Your task to perform on an android device: Go to Wikipedia Image 0: 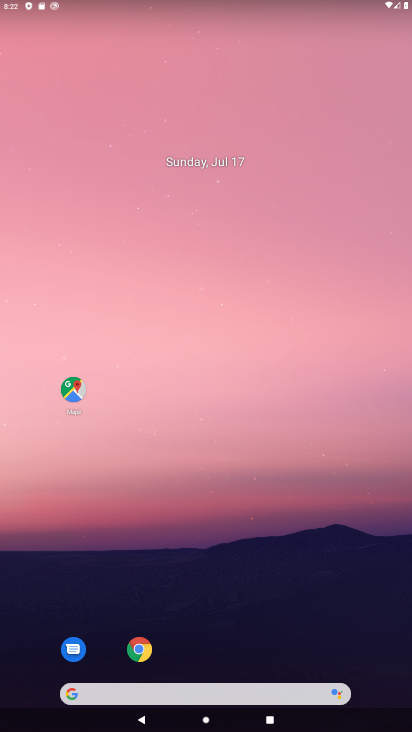
Step 0: drag from (193, 658) to (192, 127)
Your task to perform on an android device: Go to Wikipedia Image 1: 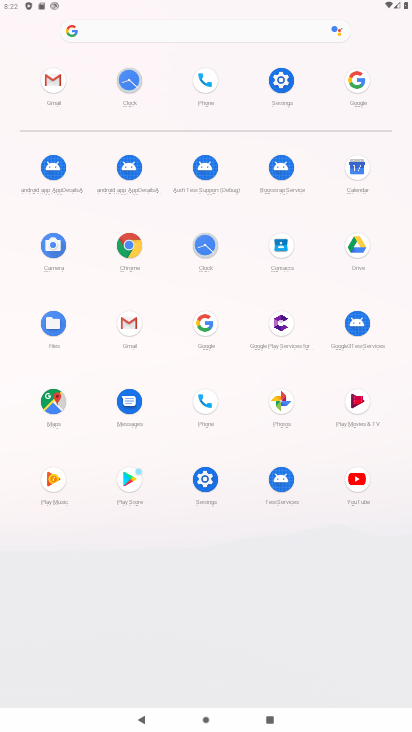
Step 1: click (129, 245)
Your task to perform on an android device: Go to Wikipedia Image 2: 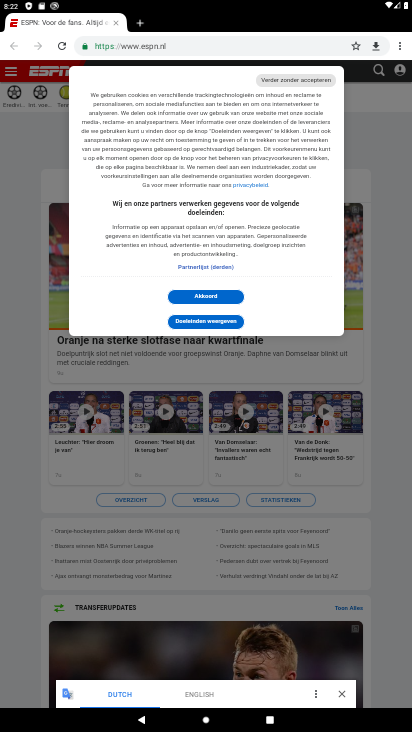
Step 2: press back button
Your task to perform on an android device: Go to Wikipedia Image 3: 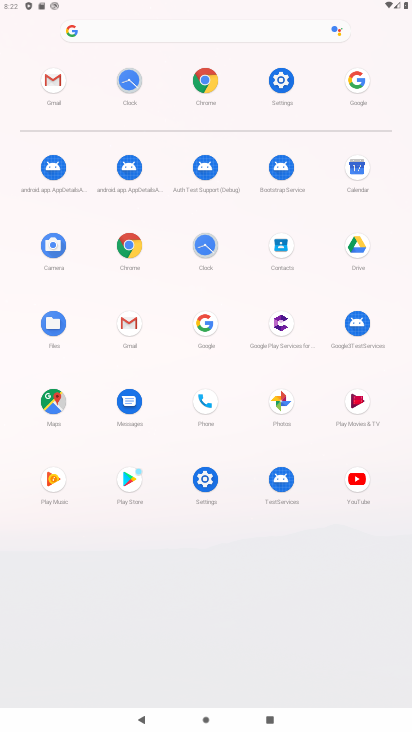
Step 3: click (126, 247)
Your task to perform on an android device: Go to Wikipedia Image 4: 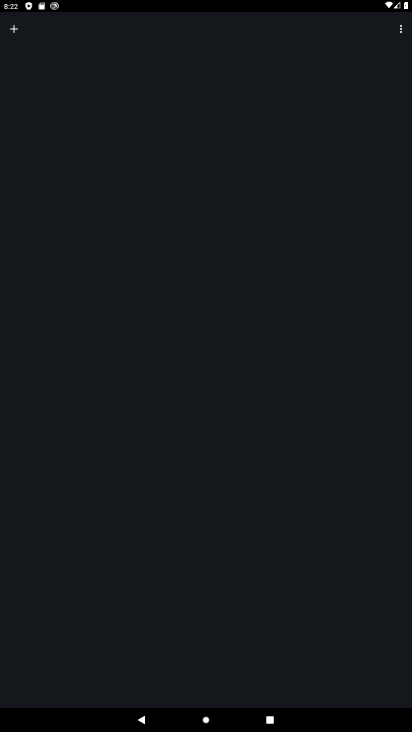
Step 4: click (11, 25)
Your task to perform on an android device: Go to Wikipedia Image 5: 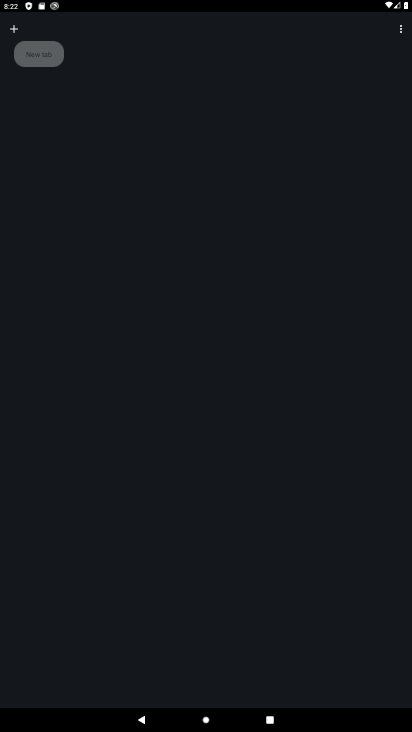
Step 5: click (16, 32)
Your task to perform on an android device: Go to Wikipedia Image 6: 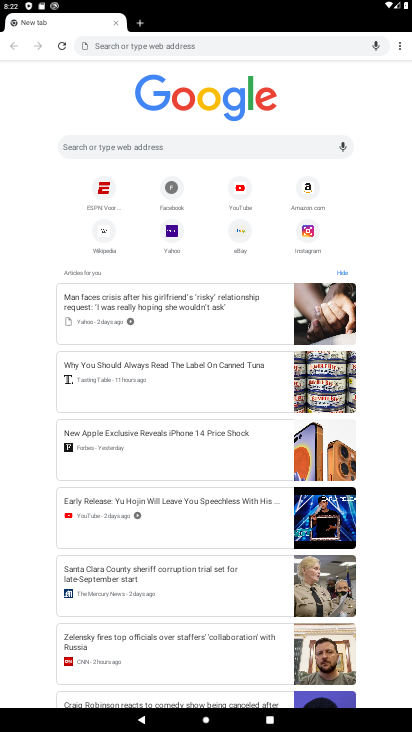
Step 6: click (109, 230)
Your task to perform on an android device: Go to Wikipedia Image 7: 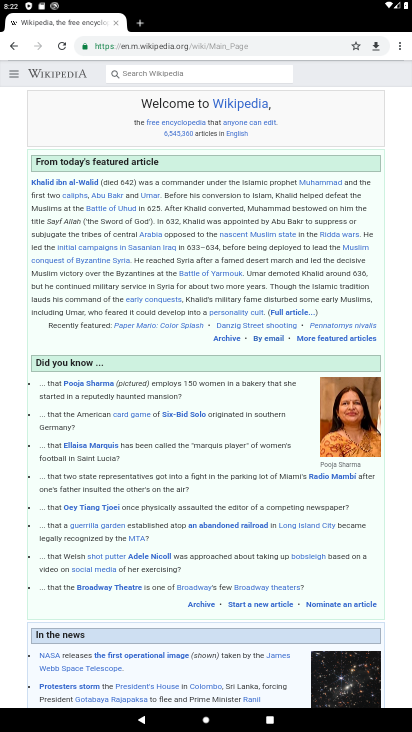
Step 7: task complete